Your task to perform on an android device: empty trash in the gmail app Image 0: 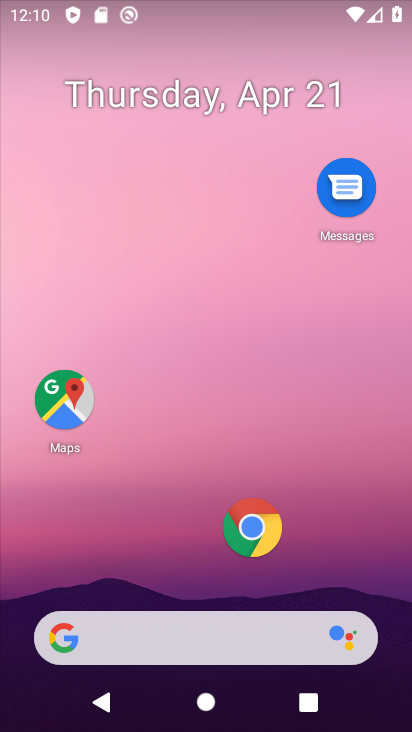
Step 0: drag from (309, 567) to (302, 67)
Your task to perform on an android device: empty trash in the gmail app Image 1: 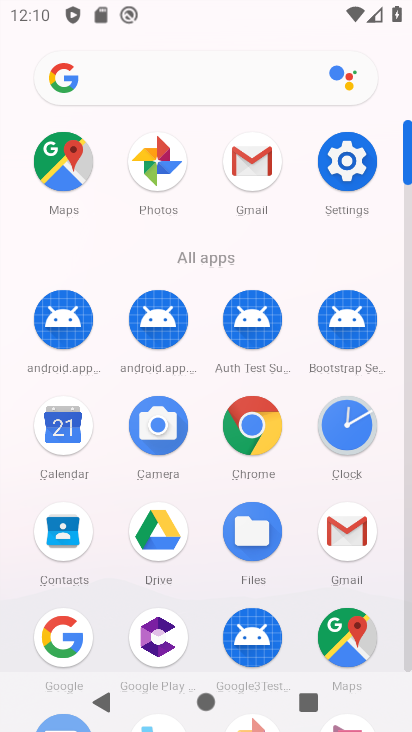
Step 1: click (249, 176)
Your task to perform on an android device: empty trash in the gmail app Image 2: 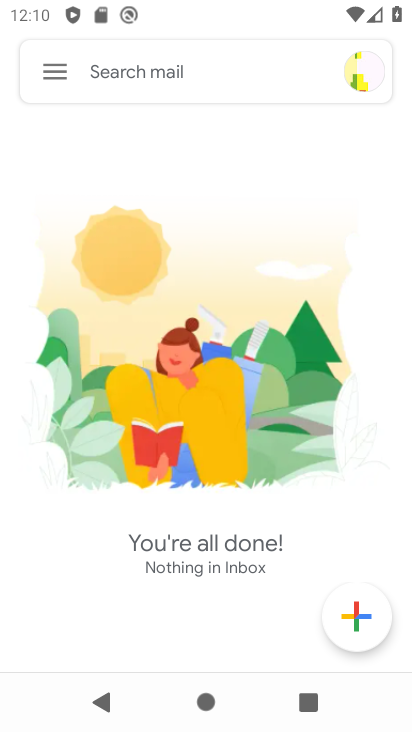
Step 2: click (55, 64)
Your task to perform on an android device: empty trash in the gmail app Image 3: 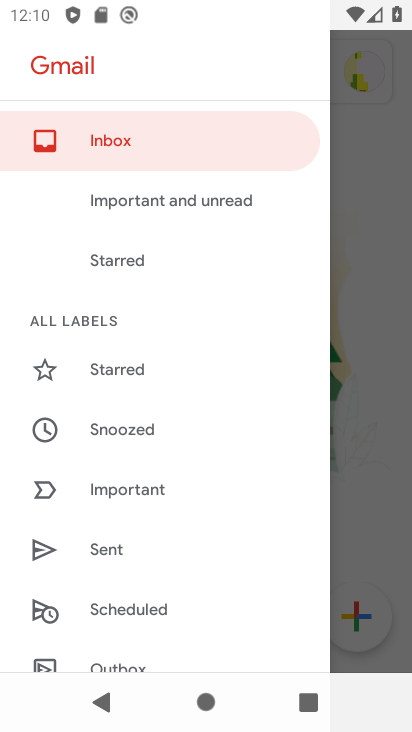
Step 3: drag from (127, 572) to (96, 393)
Your task to perform on an android device: empty trash in the gmail app Image 4: 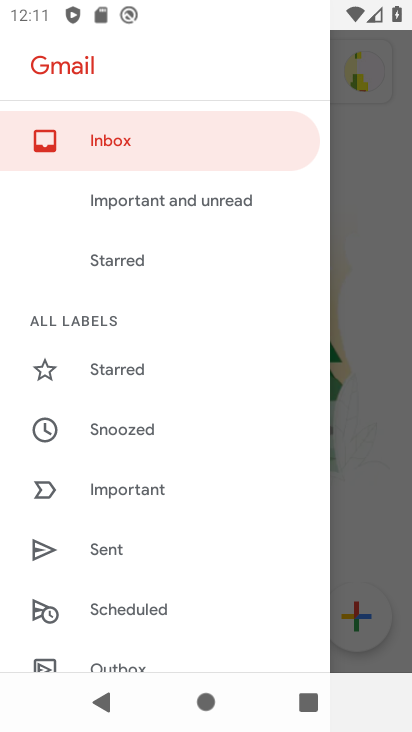
Step 4: drag from (93, 495) to (84, 380)
Your task to perform on an android device: empty trash in the gmail app Image 5: 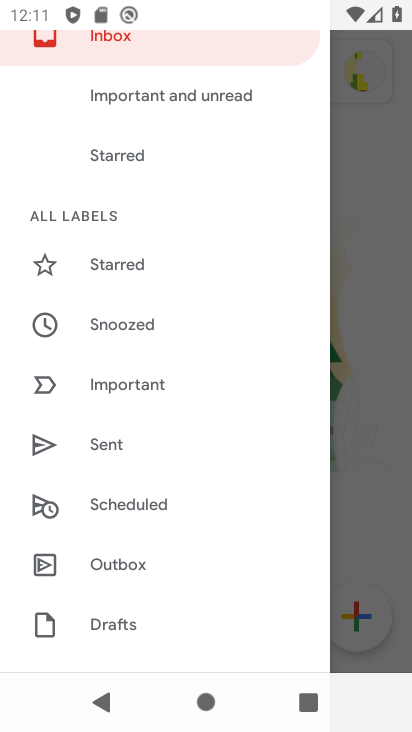
Step 5: drag from (123, 578) to (114, 405)
Your task to perform on an android device: empty trash in the gmail app Image 6: 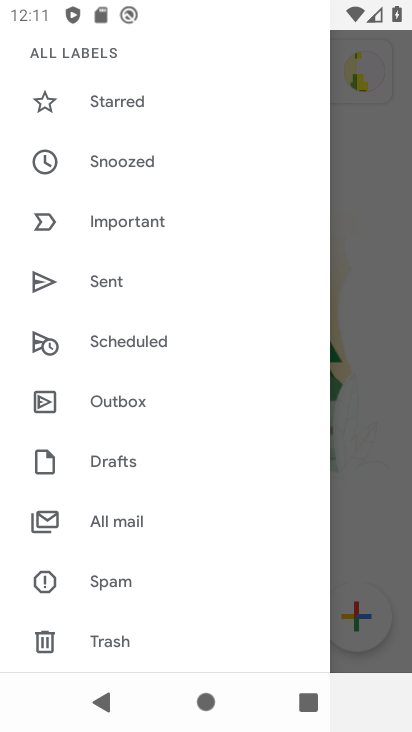
Step 6: drag from (84, 572) to (105, 457)
Your task to perform on an android device: empty trash in the gmail app Image 7: 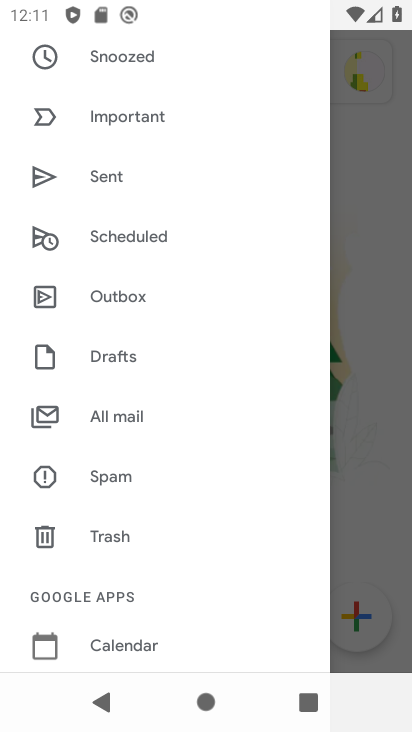
Step 7: click (121, 545)
Your task to perform on an android device: empty trash in the gmail app Image 8: 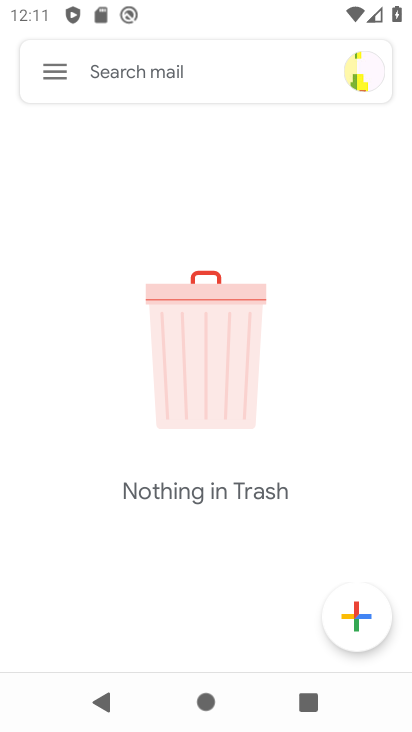
Step 8: task complete